Your task to perform on an android device: refresh tabs in the chrome app Image 0: 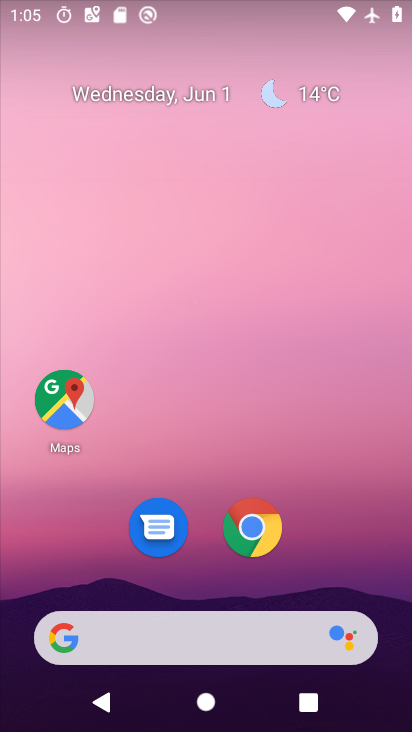
Step 0: click (255, 541)
Your task to perform on an android device: refresh tabs in the chrome app Image 1: 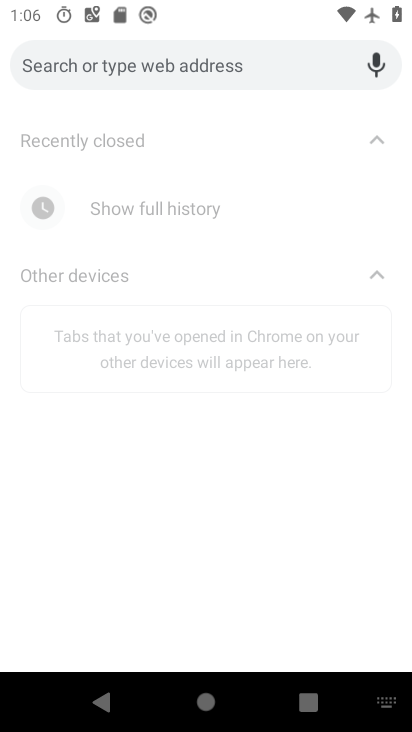
Step 1: press home button
Your task to perform on an android device: refresh tabs in the chrome app Image 2: 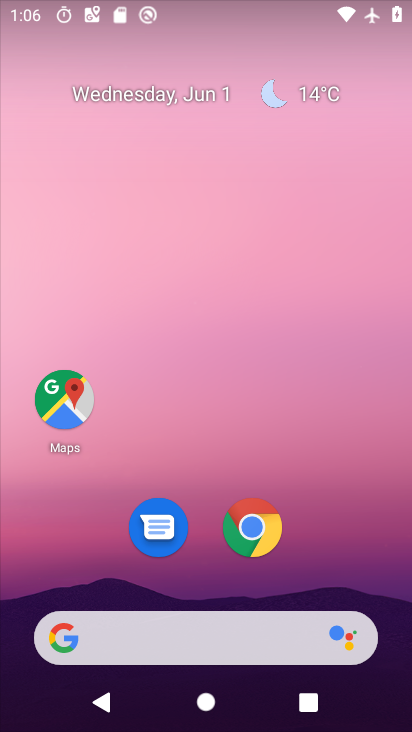
Step 2: click (251, 530)
Your task to perform on an android device: refresh tabs in the chrome app Image 3: 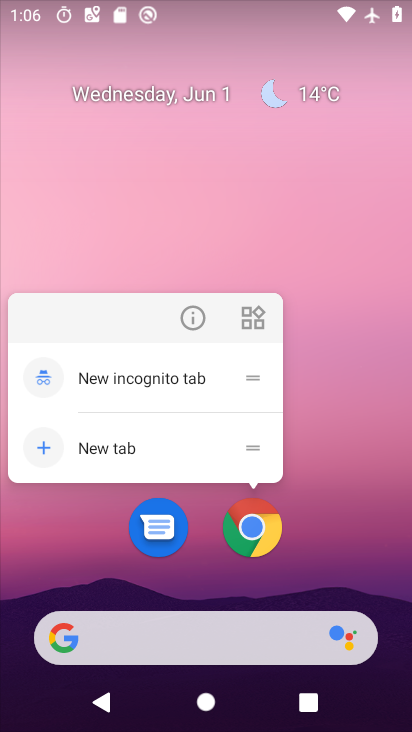
Step 3: click (251, 527)
Your task to perform on an android device: refresh tabs in the chrome app Image 4: 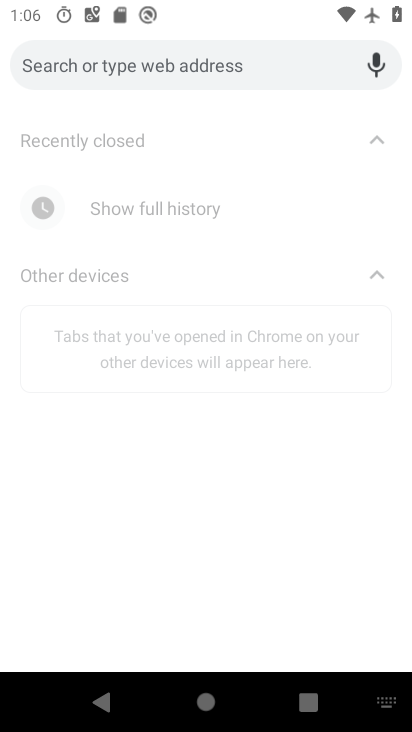
Step 4: drag from (219, 58) to (221, 452)
Your task to perform on an android device: refresh tabs in the chrome app Image 5: 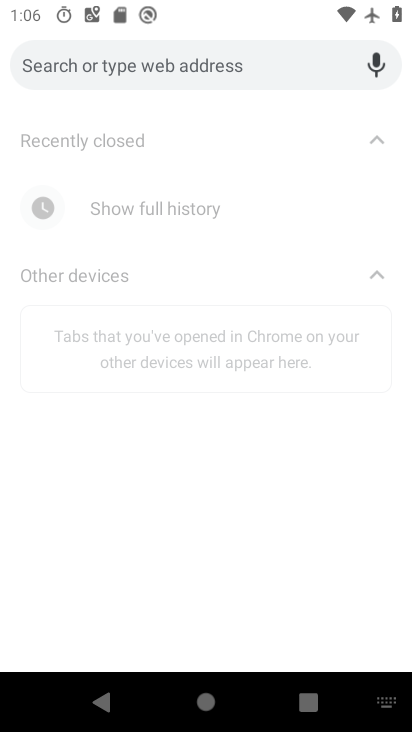
Step 5: drag from (125, 42) to (139, 401)
Your task to perform on an android device: refresh tabs in the chrome app Image 6: 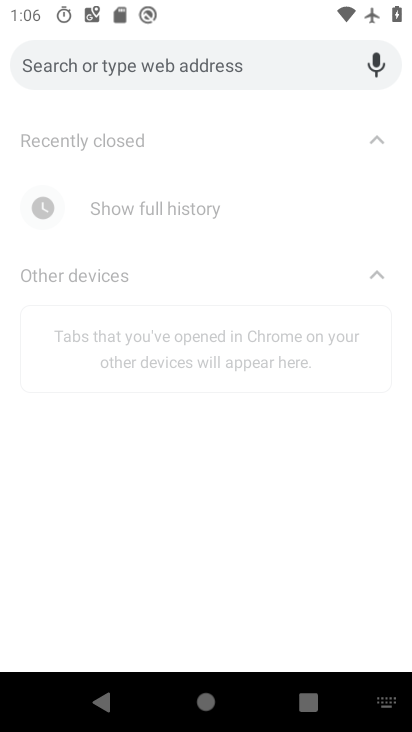
Step 6: drag from (185, 14) to (208, 436)
Your task to perform on an android device: refresh tabs in the chrome app Image 7: 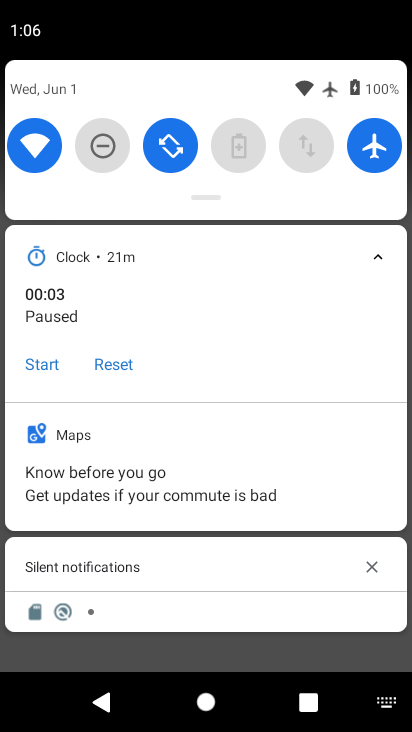
Step 7: drag from (243, 534) to (210, 104)
Your task to perform on an android device: refresh tabs in the chrome app Image 8: 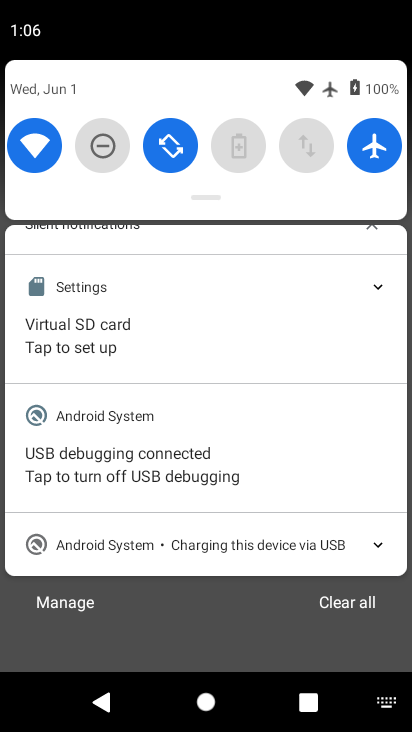
Step 8: drag from (205, 553) to (187, 65)
Your task to perform on an android device: refresh tabs in the chrome app Image 9: 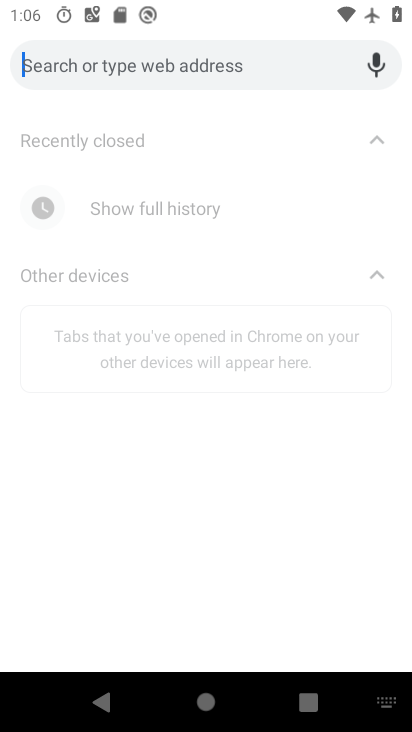
Step 9: press back button
Your task to perform on an android device: refresh tabs in the chrome app Image 10: 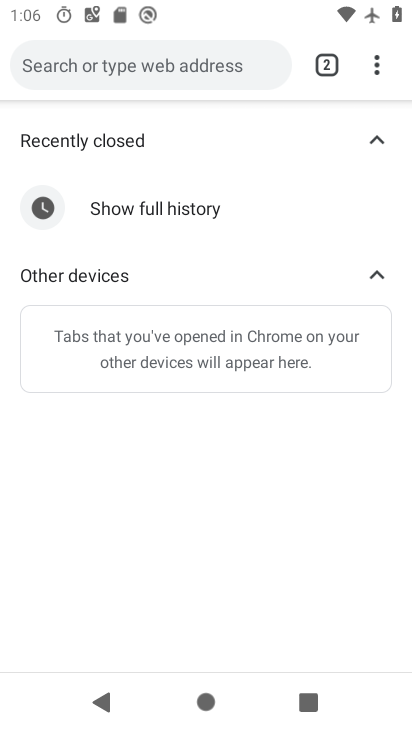
Step 10: click (378, 63)
Your task to perform on an android device: refresh tabs in the chrome app Image 11: 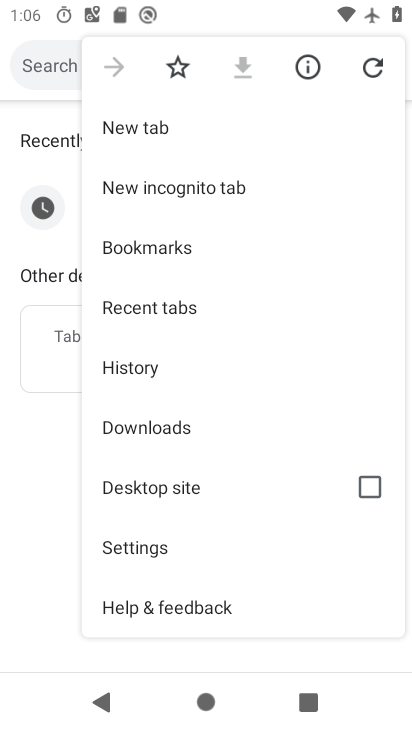
Step 11: click (381, 67)
Your task to perform on an android device: refresh tabs in the chrome app Image 12: 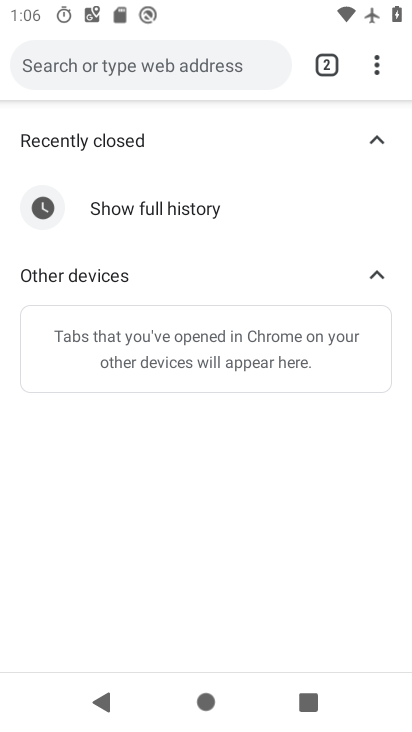
Step 12: task complete